Your task to perform on an android device: change the clock display to digital Image 0: 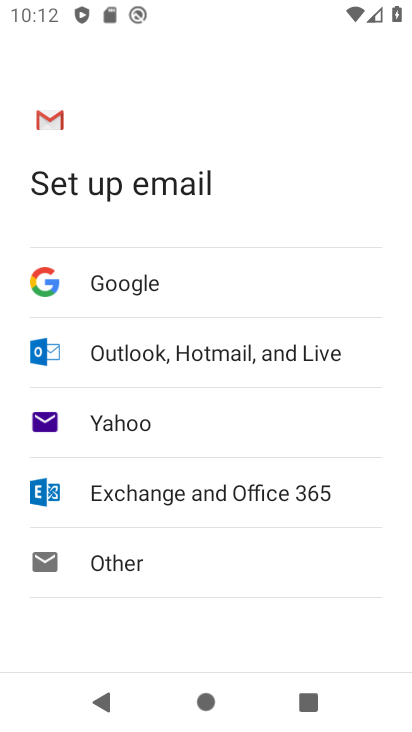
Step 0: press home button
Your task to perform on an android device: change the clock display to digital Image 1: 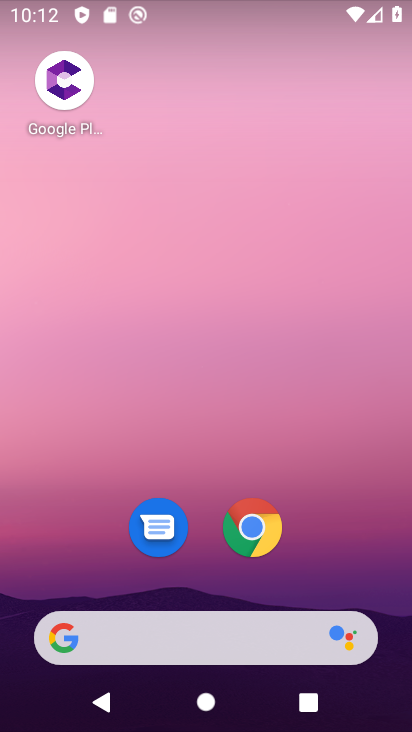
Step 1: drag from (360, 565) to (273, 5)
Your task to perform on an android device: change the clock display to digital Image 2: 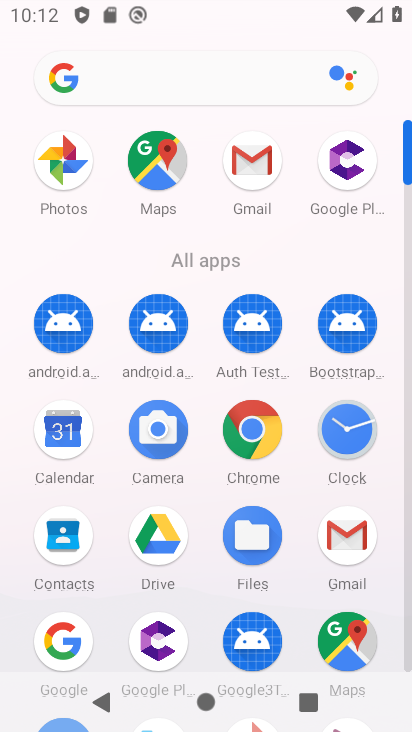
Step 2: click (345, 416)
Your task to perform on an android device: change the clock display to digital Image 3: 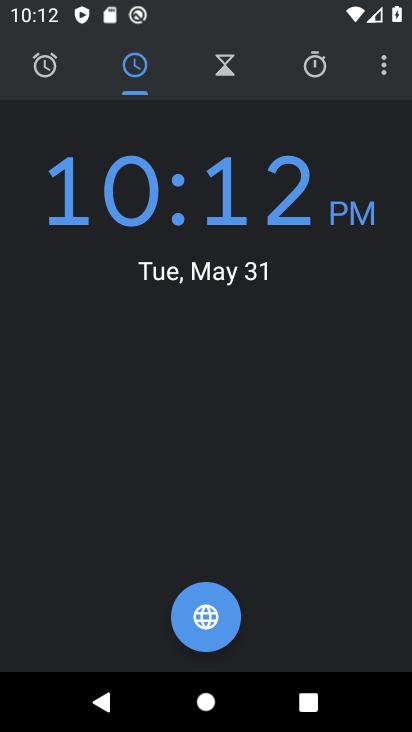
Step 3: click (388, 76)
Your task to perform on an android device: change the clock display to digital Image 4: 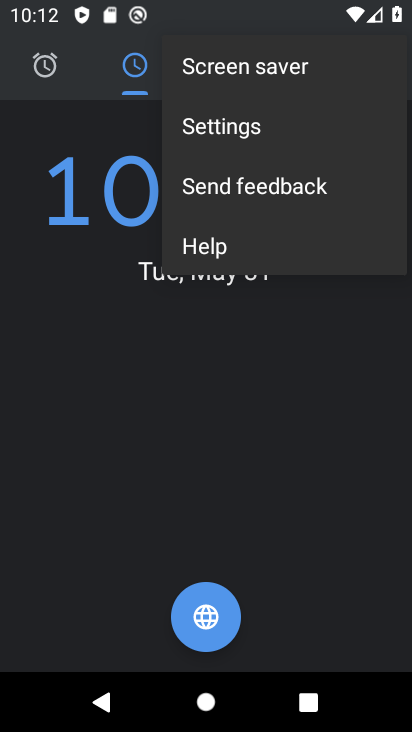
Step 4: click (298, 139)
Your task to perform on an android device: change the clock display to digital Image 5: 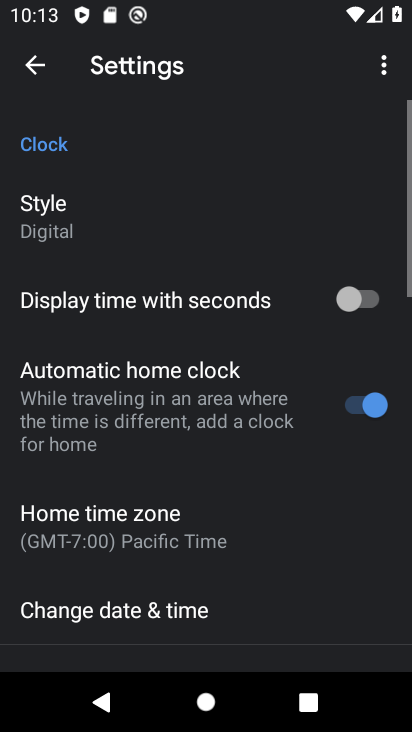
Step 5: click (204, 186)
Your task to perform on an android device: change the clock display to digital Image 6: 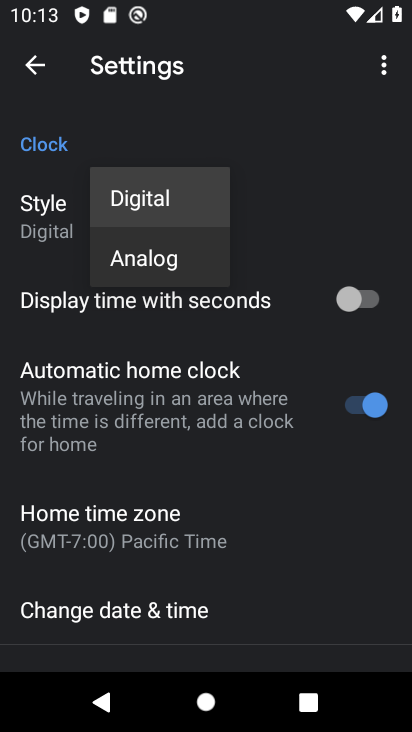
Step 6: task complete